Your task to perform on an android device: set the stopwatch Image 0: 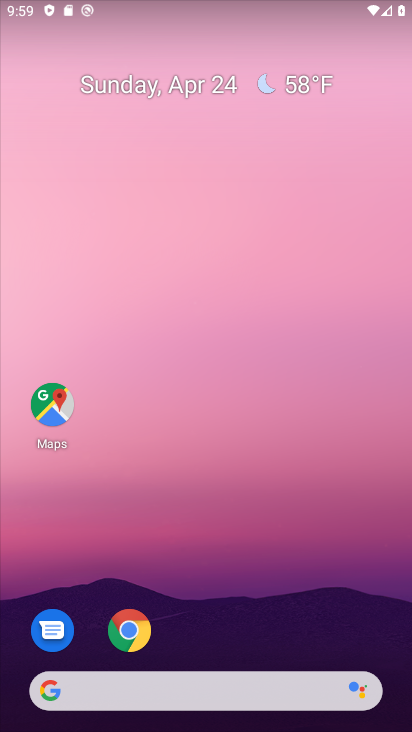
Step 0: drag from (244, 658) to (339, 152)
Your task to perform on an android device: set the stopwatch Image 1: 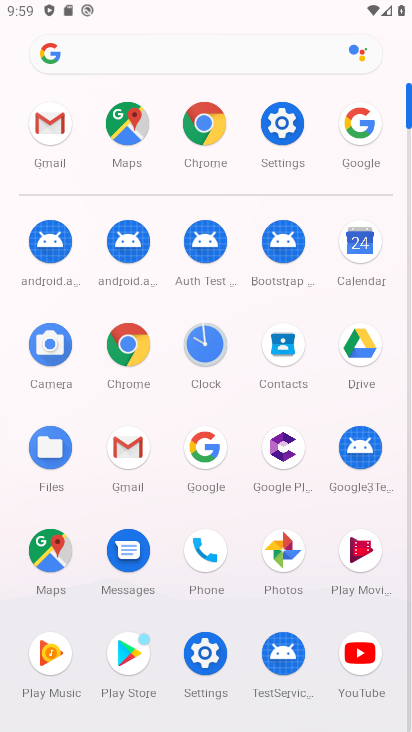
Step 1: click (209, 346)
Your task to perform on an android device: set the stopwatch Image 2: 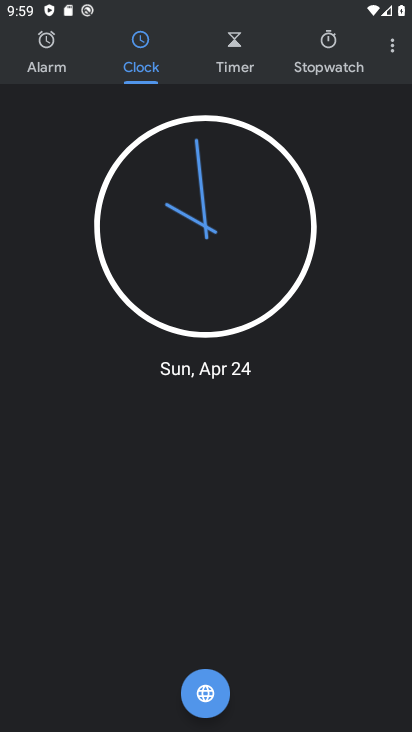
Step 2: click (334, 72)
Your task to perform on an android device: set the stopwatch Image 3: 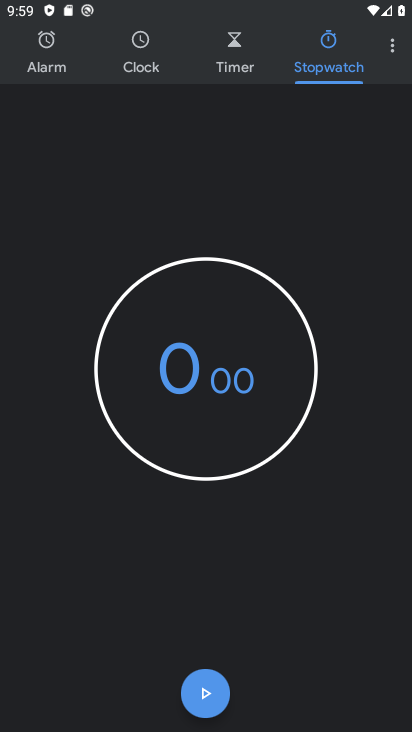
Step 3: click (205, 674)
Your task to perform on an android device: set the stopwatch Image 4: 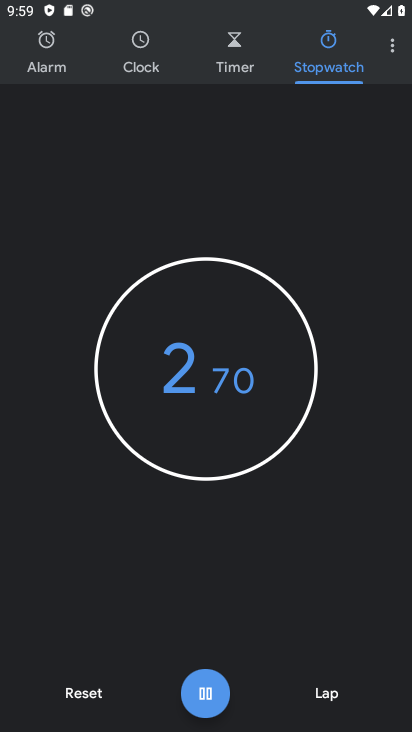
Step 4: task complete